Your task to perform on an android device: install app "PUBG MOBILE" Image 0: 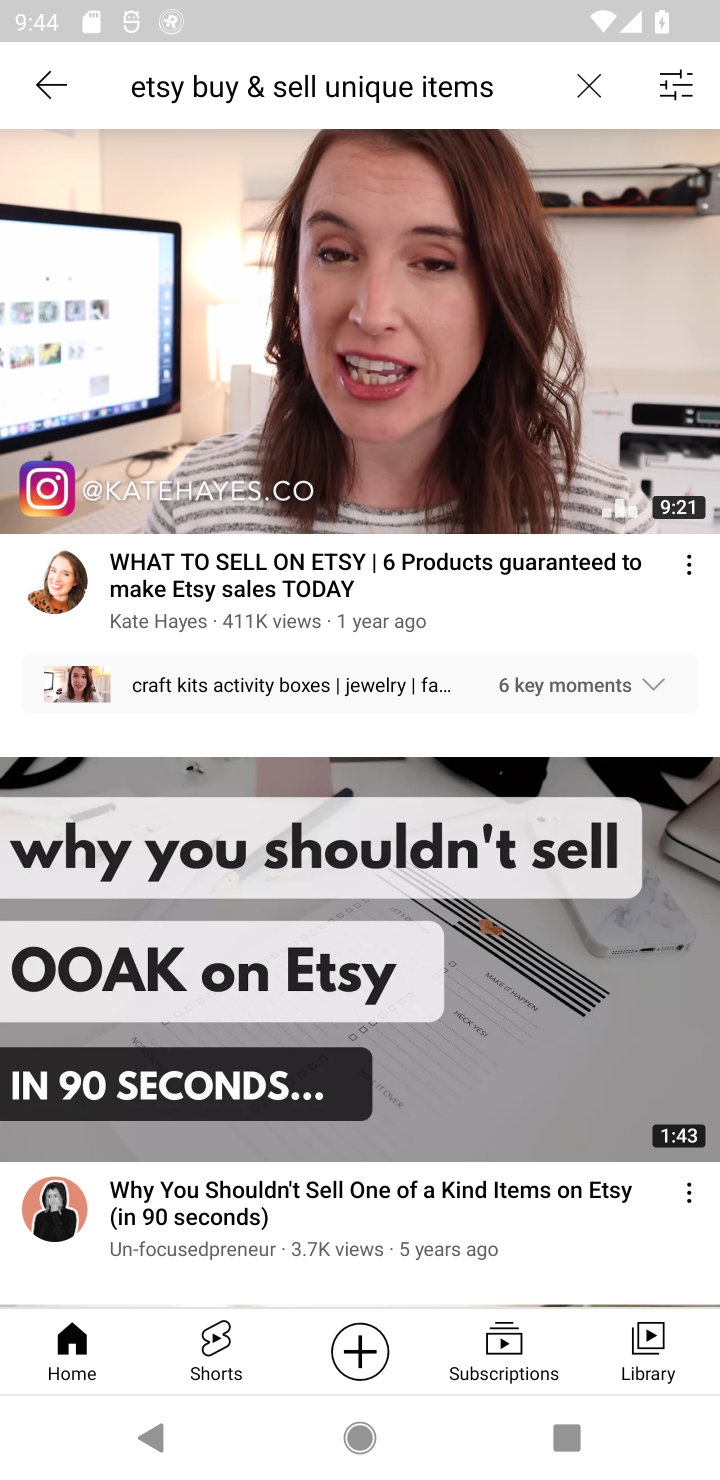
Step 0: press home button
Your task to perform on an android device: install app "PUBG MOBILE" Image 1: 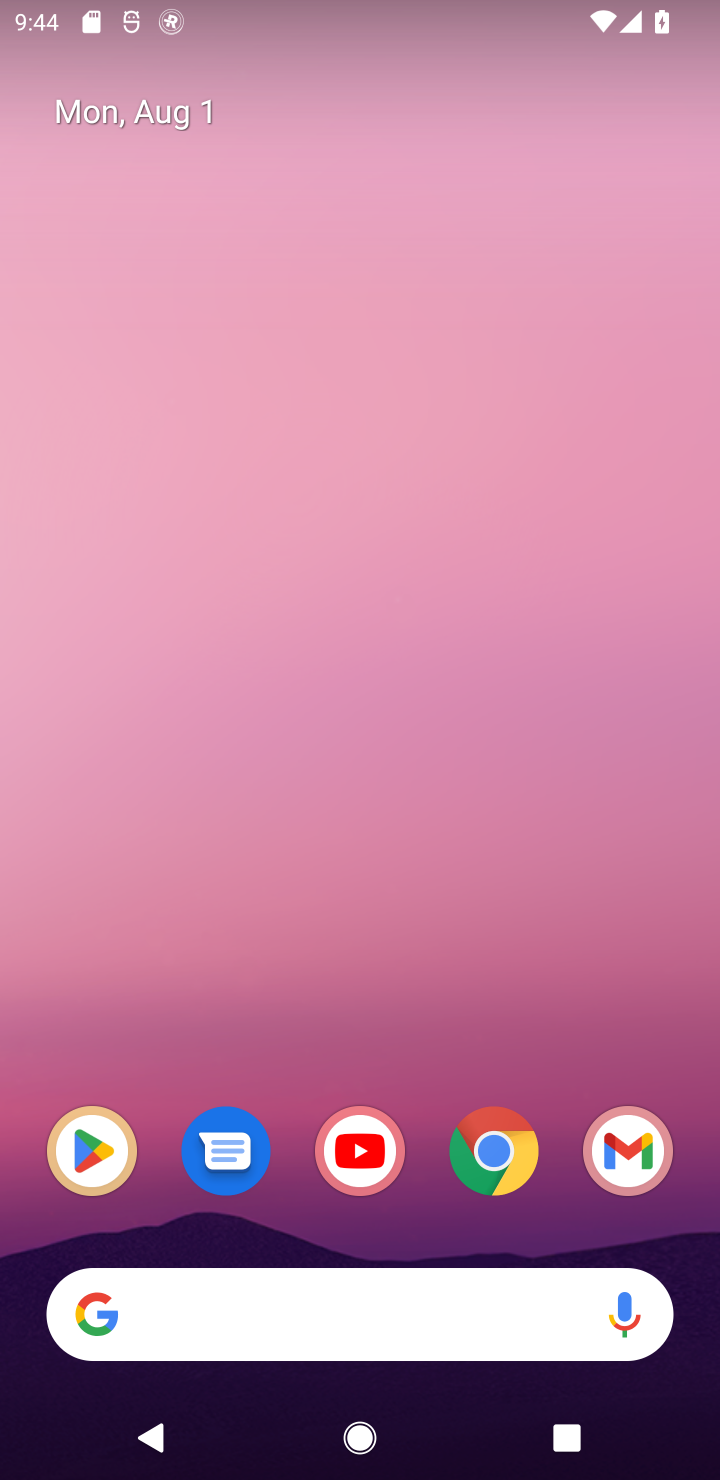
Step 1: click (91, 1168)
Your task to perform on an android device: install app "PUBG MOBILE" Image 2: 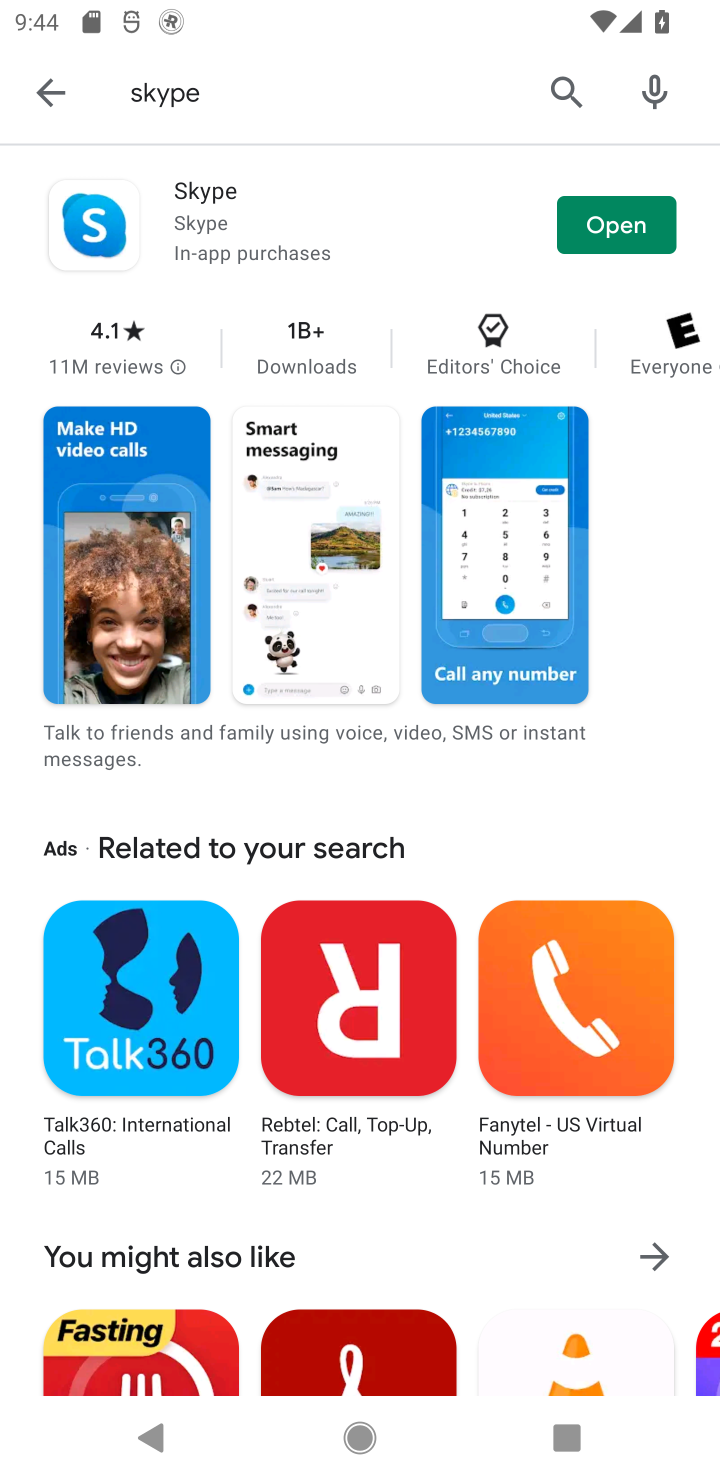
Step 2: click (542, 87)
Your task to perform on an android device: install app "PUBG MOBILE" Image 3: 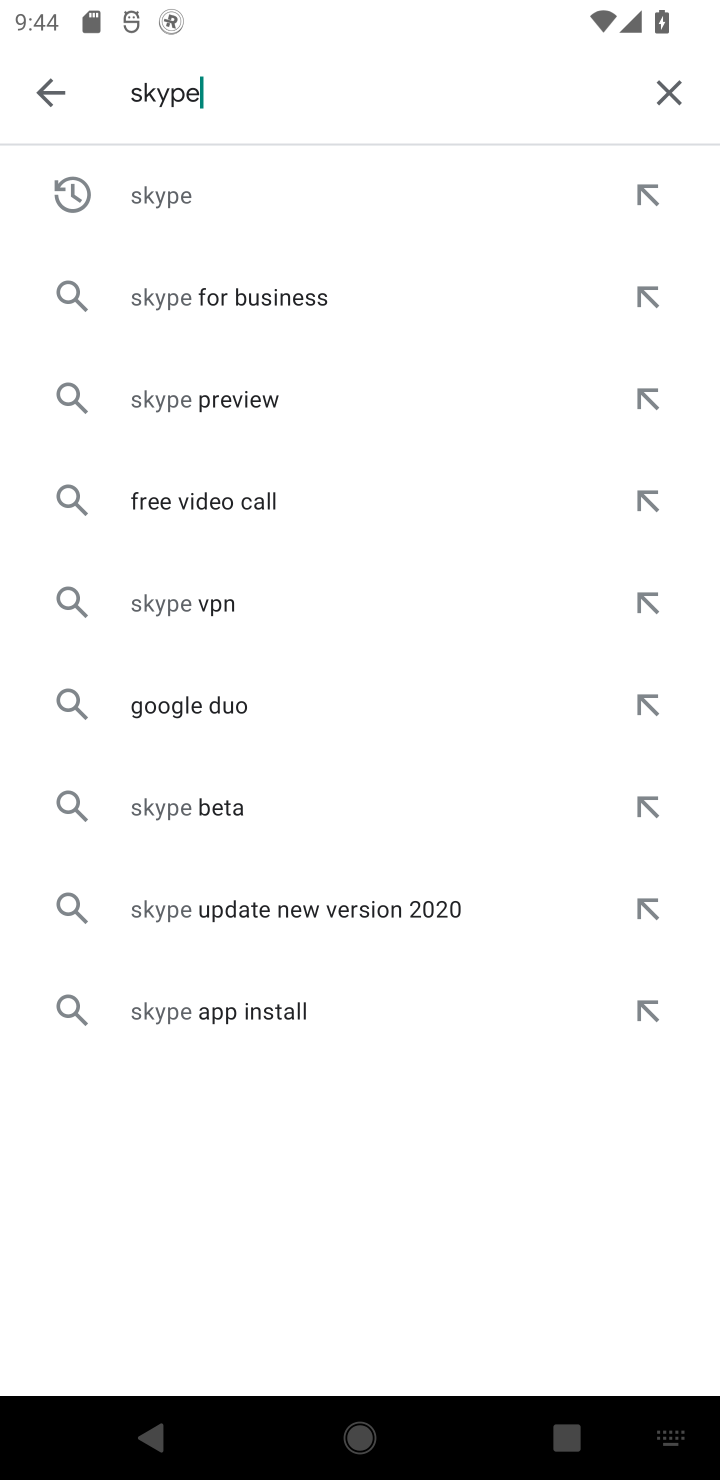
Step 3: click (662, 60)
Your task to perform on an android device: install app "PUBG MOBILE" Image 4: 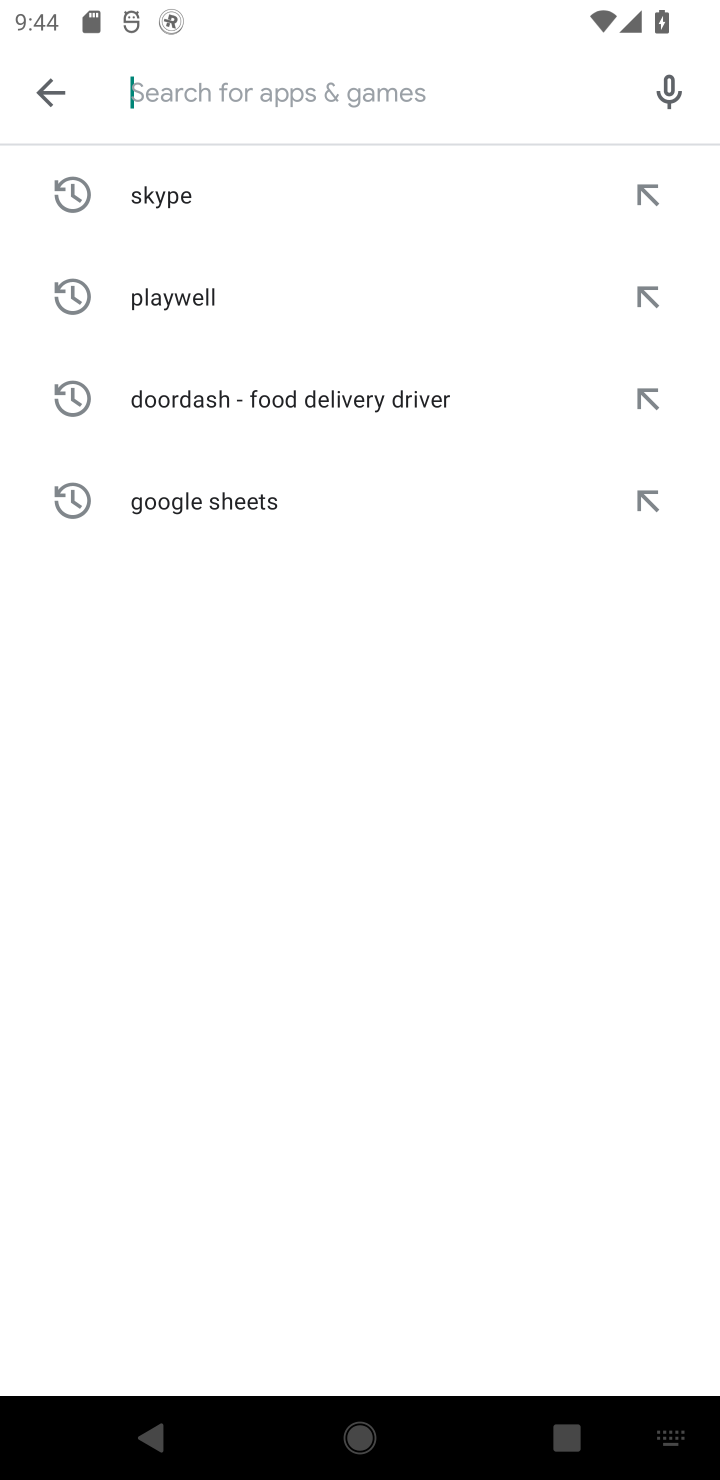
Step 4: type "PUBG MOBILE"
Your task to perform on an android device: install app "PUBG MOBILE" Image 5: 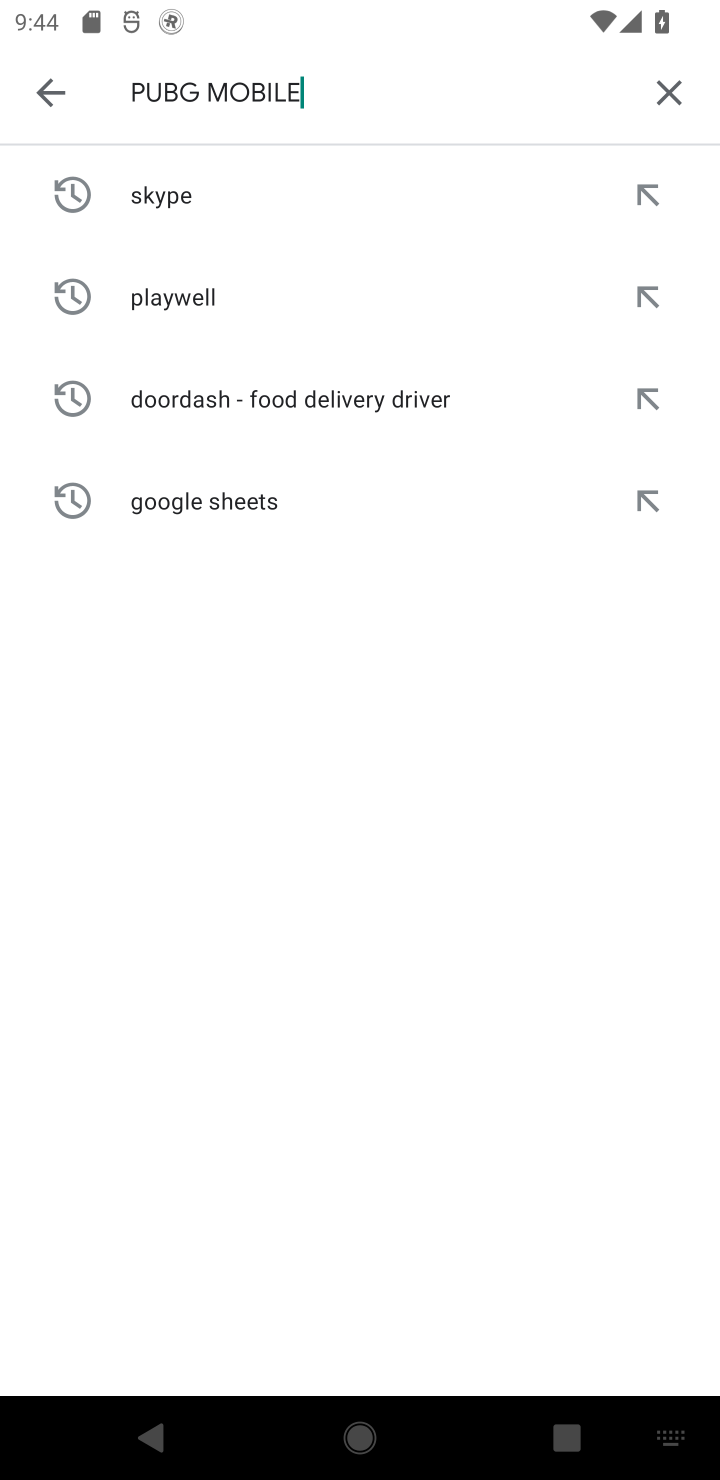
Step 5: type ""
Your task to perform on an android device: install app "PUBG MOBILE" Image 6: 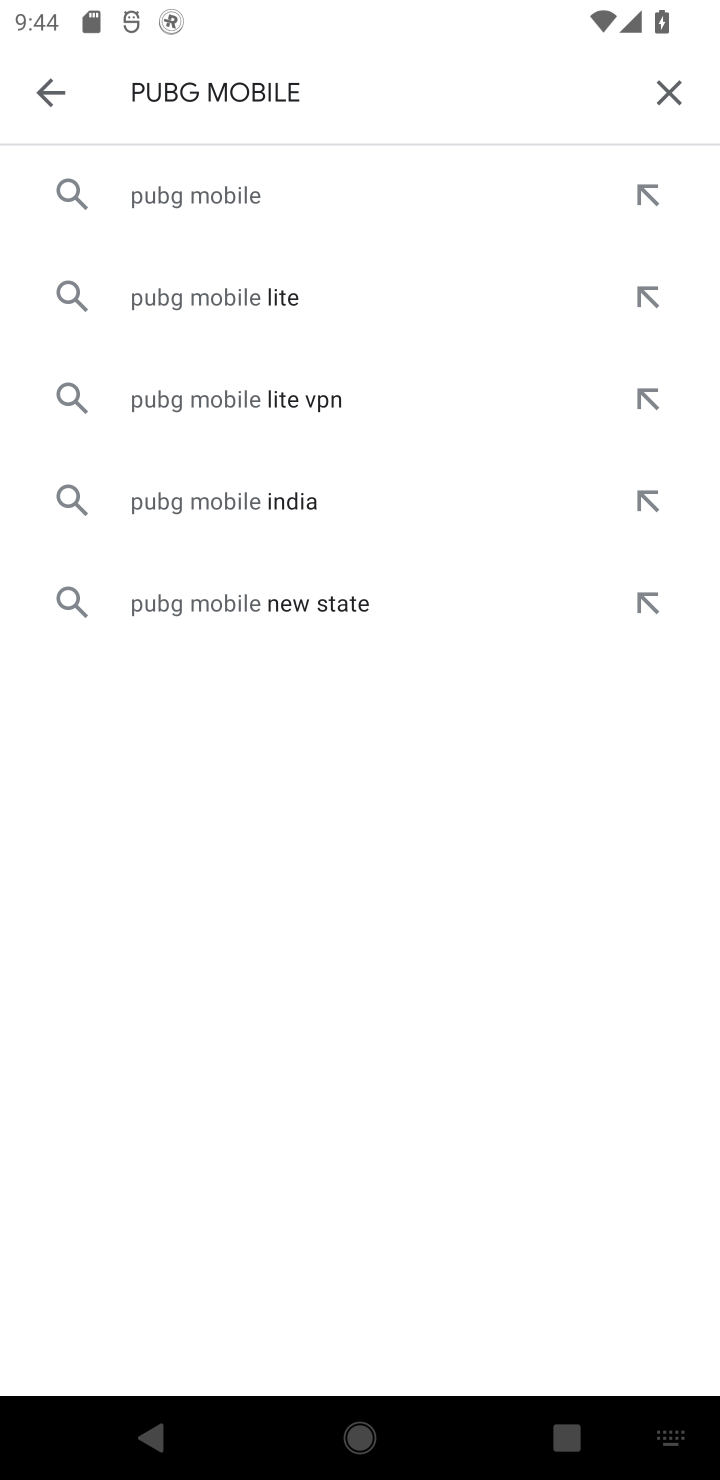
Step 6: click (241, 181)
Your task to perform on an android device: install app "PUBG MOBILE" Image 7: 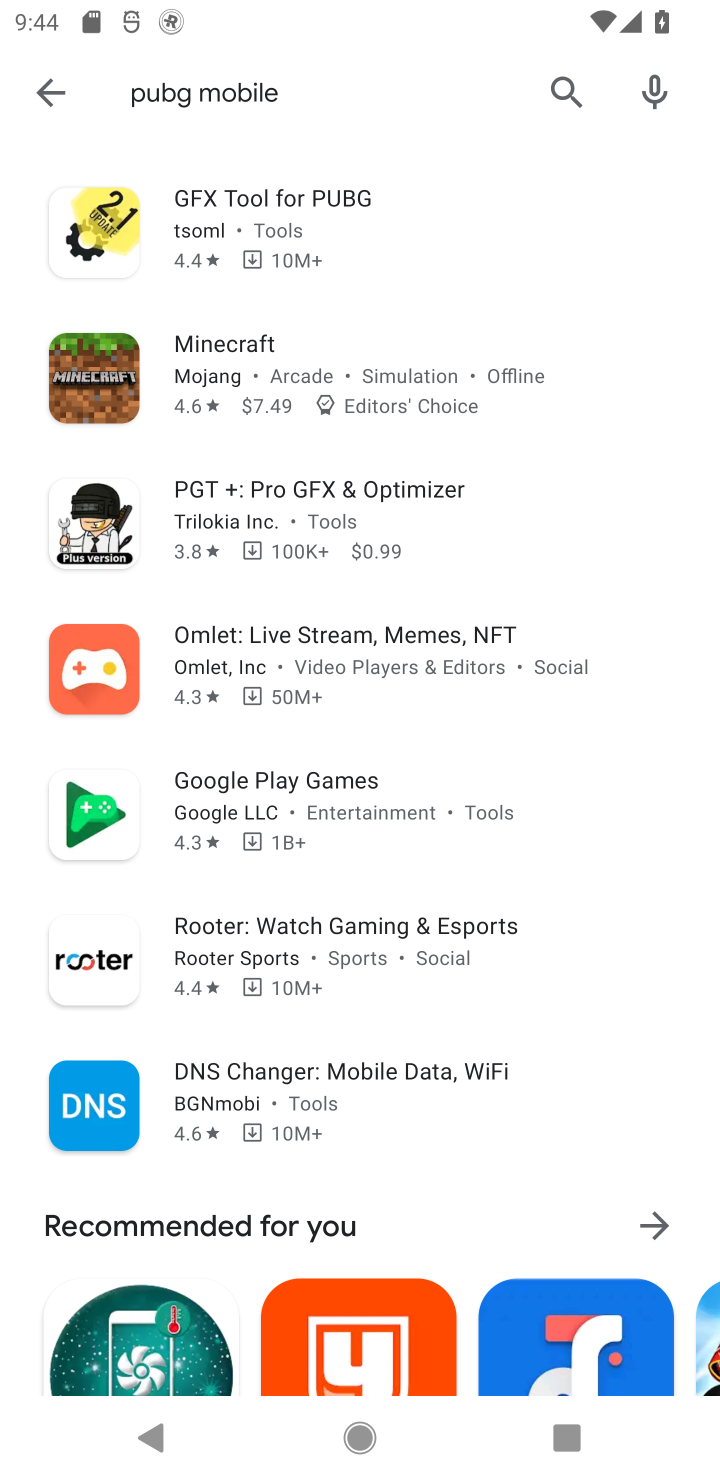
Step 7: task complete